Your task to perform on an android device: Show me popular games on the Play Store Image 0: 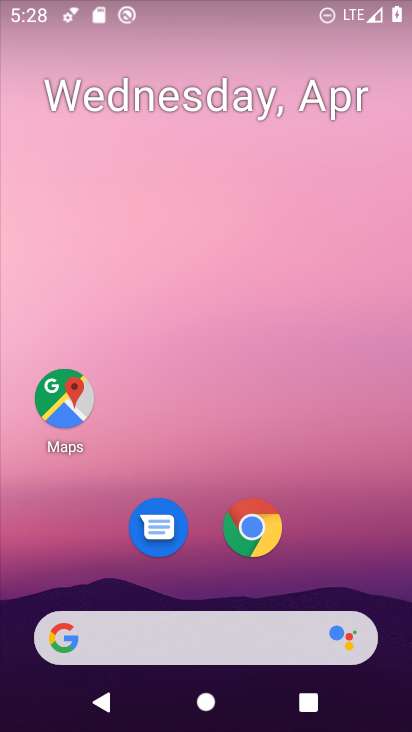
Step 0: drag from (357, 469) to (362, 29)
Your task to perform on an android device: Show me popular games on the Play Store Image 1: 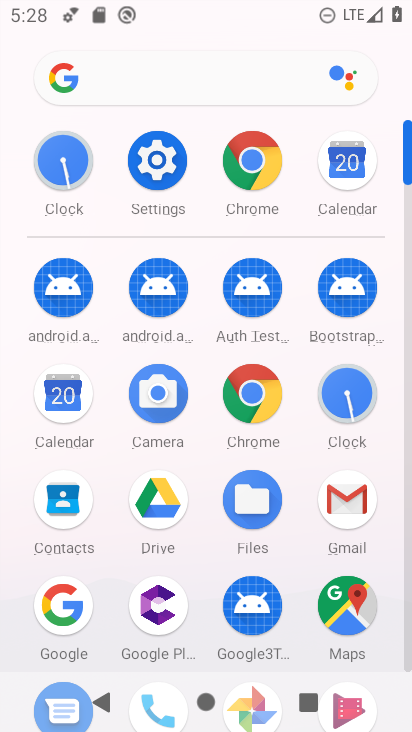
Step 1: click (406, 540)
Your task to perform on an android device: Show me popular games on the Play Store Image 2: 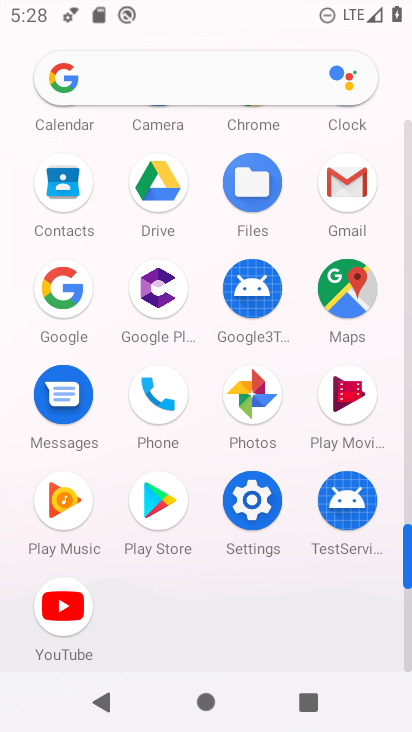
Step 2: click (164, 505)
Your task to perform on an android device: Show me popular games on the Play Store Image 3: 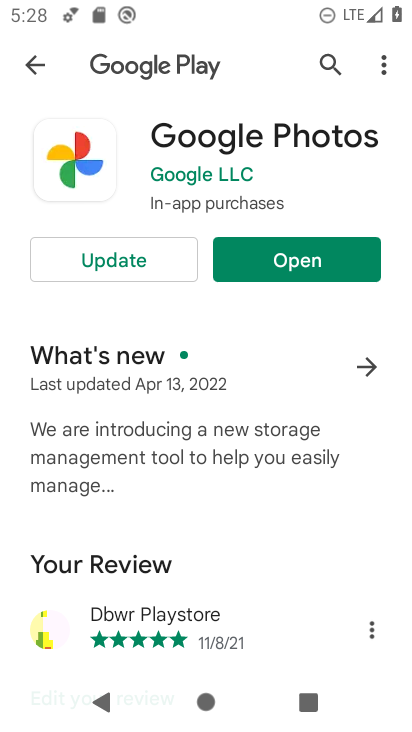
Step 3: click (33, 67)
Your task to perform on an android device: Show me popular games on the Play Store Image 4: 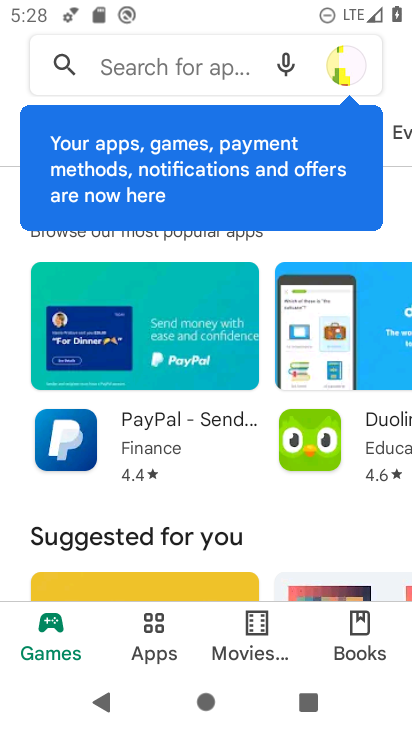
Step 4: click (55, 647)
Your task to perform on an android device: Show me popular games on the Play Store Image 5: 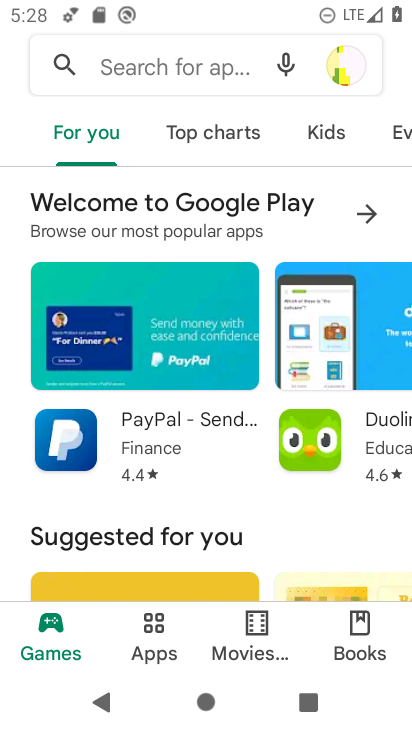
Step 5: drag from (221, 416) to (195, 173)
Your task to perform on an android device: Show me popular games on the Play Store Image 6: 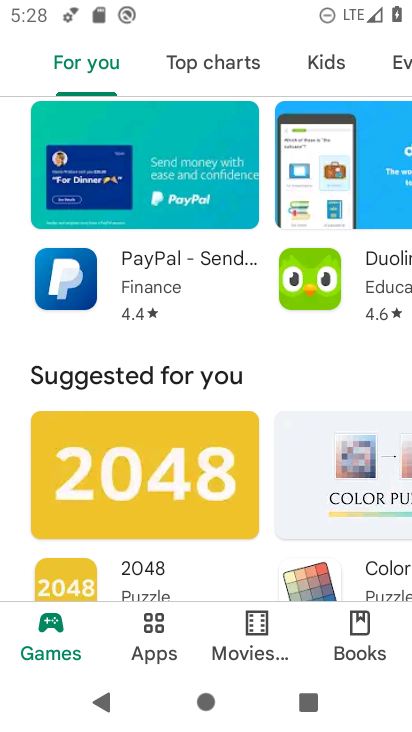
Step 6: drag from (209, 378) to (210, 231)
Your task to perform on an android device: Show me popular games on the Play Store Image 7: 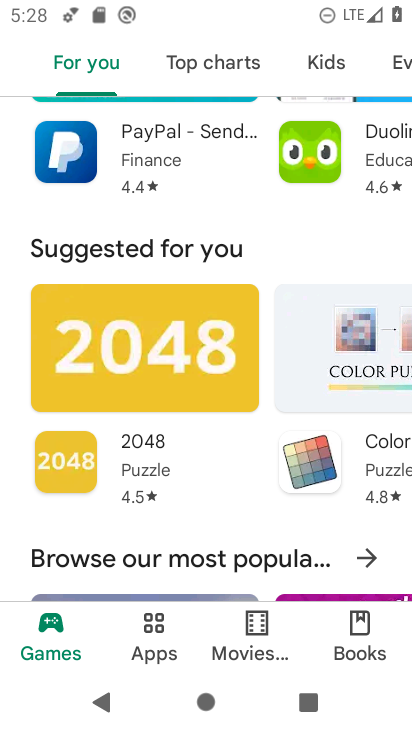
Step 7: drag from (199, 452) to (214, 242)
Your task to perform on an android device: Show me popular games on the Play Store Image 8: 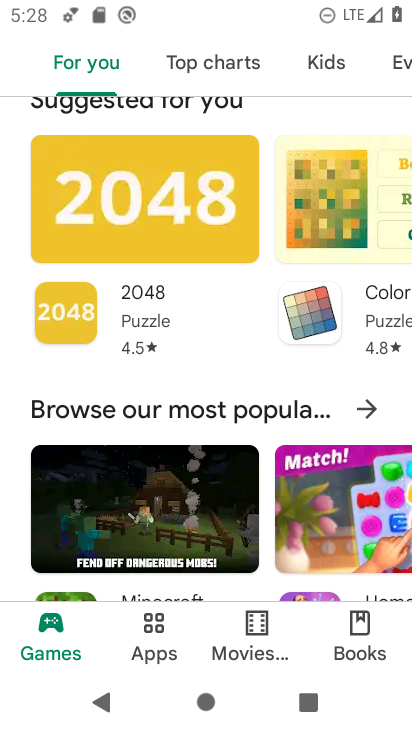
Step 8: click (264, 418)
Your task to perform on an android device: Show me popular games on the Play Store Image 9: 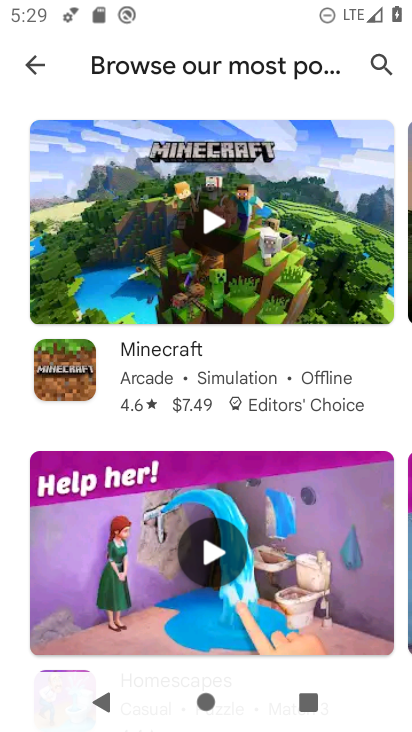
Step 9: task complete